Your task to perform on an android device: Open maps Image 0: 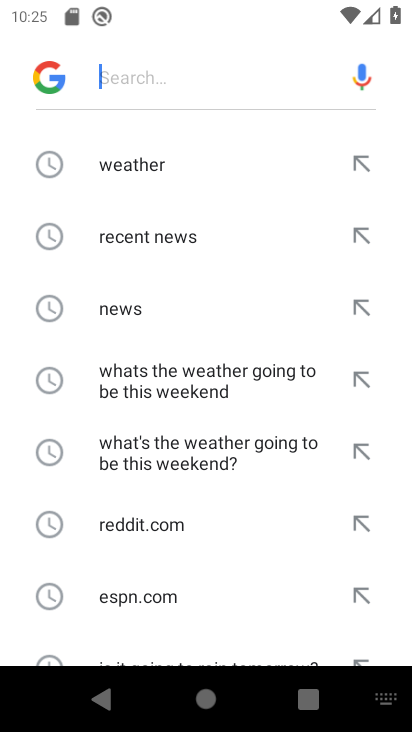
Step 0: press home button
Your task to perform on an android device: Open maps Image 1: 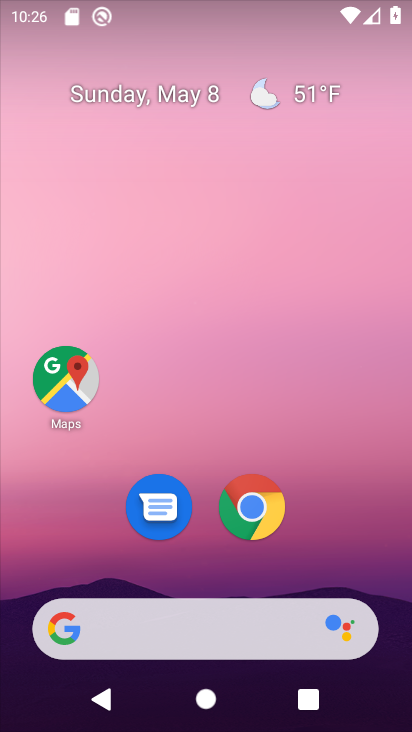
Step 1: click (65, 376)
Your task to perform on an android device: Open maps Image 2: 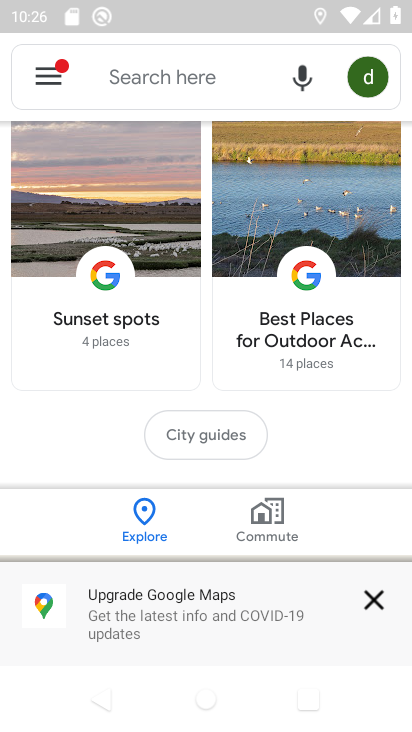
Step 2: task complete